Your task to perform on an android device: Open Maps and search for coffee Image 0: 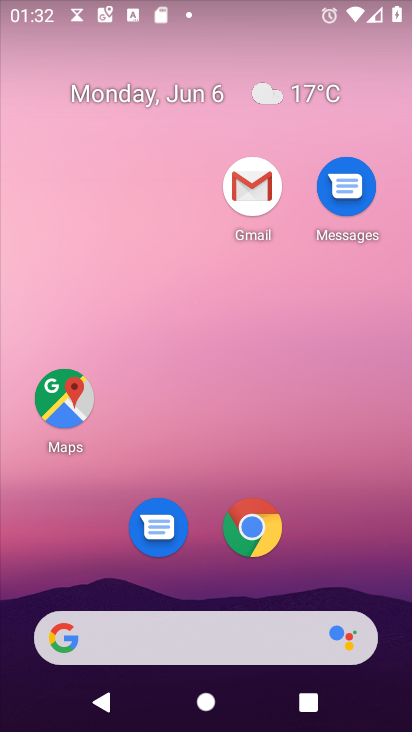
Step 0: click (72, 381)
Your task to perform on an android device: Open Maps and search for coffee Image 1: 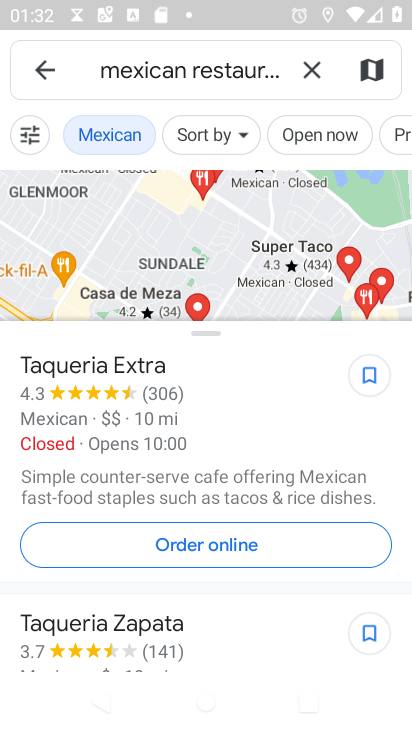
Step 1: click (317, 71)
Your task to perform on an android device: Open Maps and search for coffee Image 2: 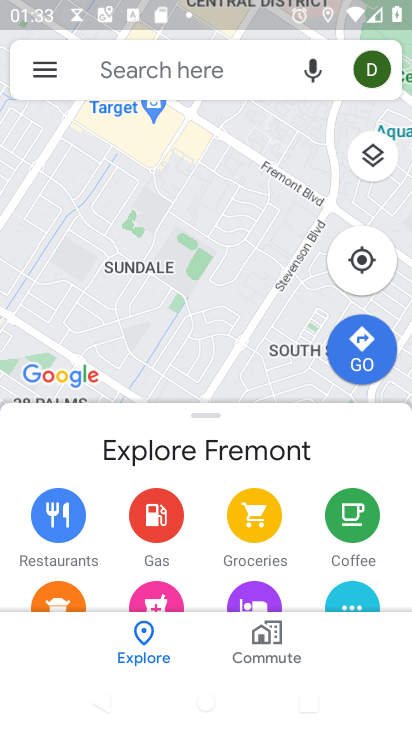
Step 2: click (208, 77)
Your task to perform on an android device: Open Maps and search for coffee Image 3: 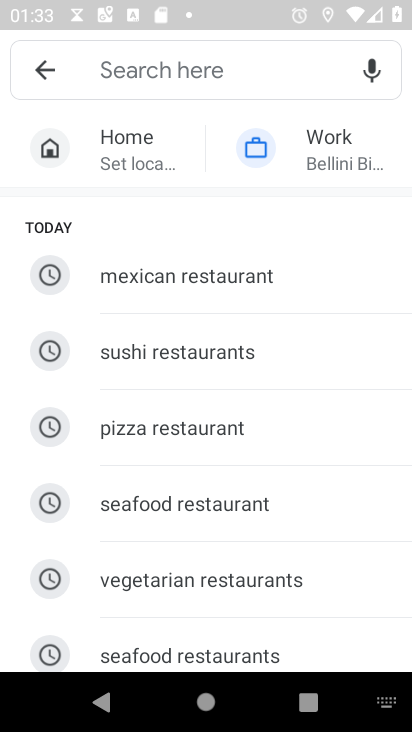
Step 3: type "Coffee"
Your task to perform on an android device: Open Maps and search for coffee Image 4: 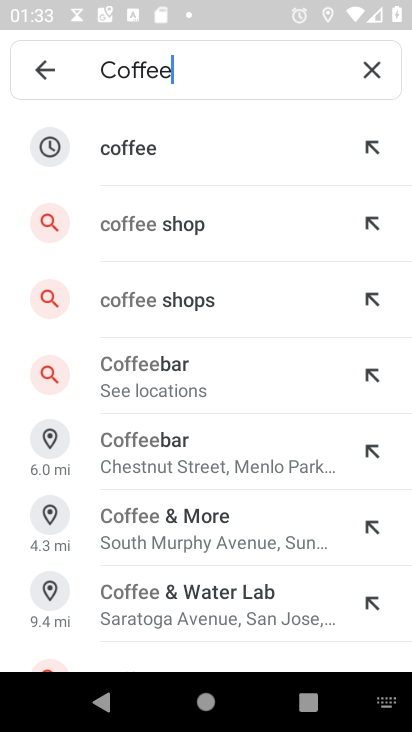
Step 4: click (156, 148)
Your task to perform on an android device: Open Maps and search for coffee Image 5: 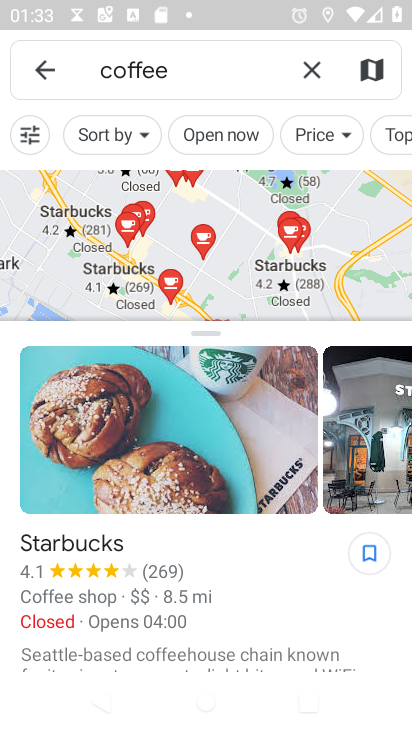
Step 5: task complete